Your task to perform on an android device: toggle location history Image 0: 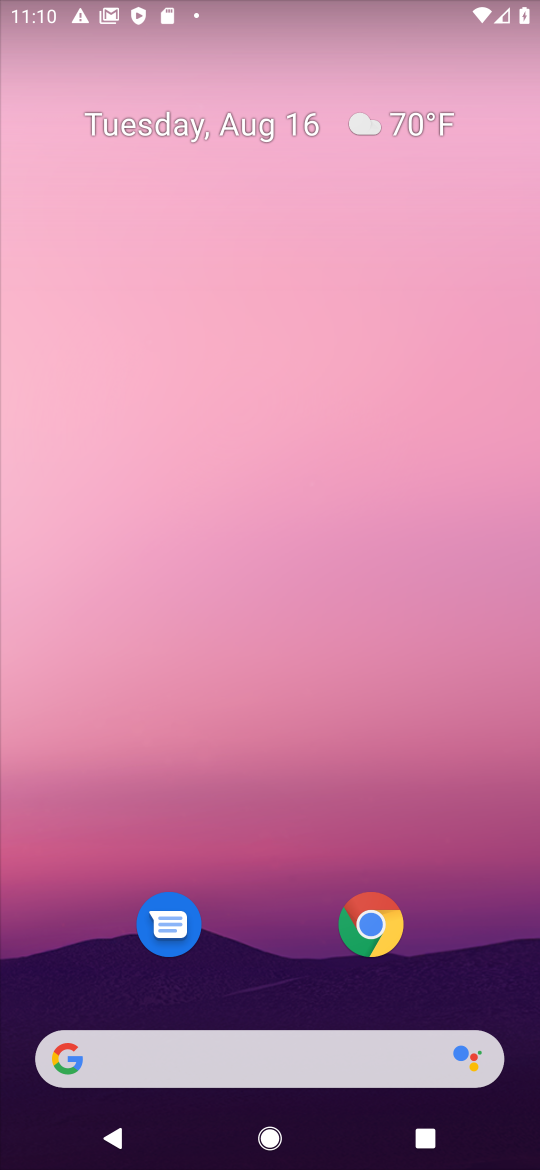
Step 0: click (388, 118)
Your task to perform on an android device: toggle location history Image 1: 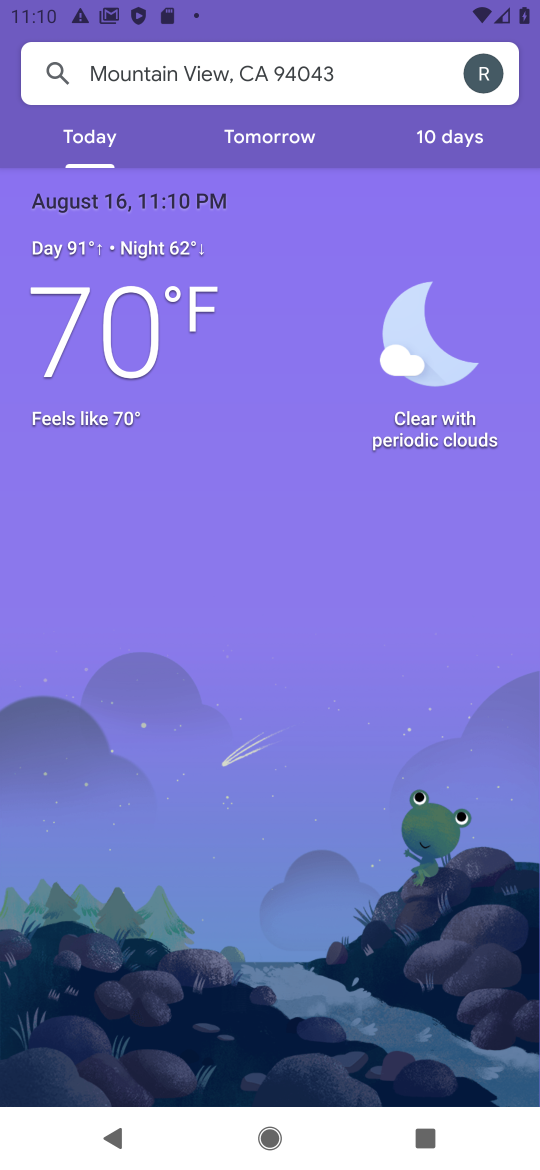
Step 1: task complete